Your task to perform on an android device: Search for vegetarian restaurants on Maps Image 0: 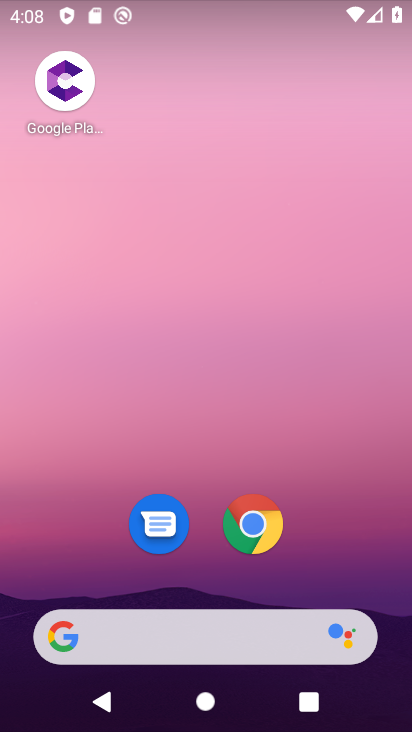
Step 0: drag from (352, 532) to (287, 35)
Your task to perform on an android device: Search for vegetarian restaurants on Maps Image 1: 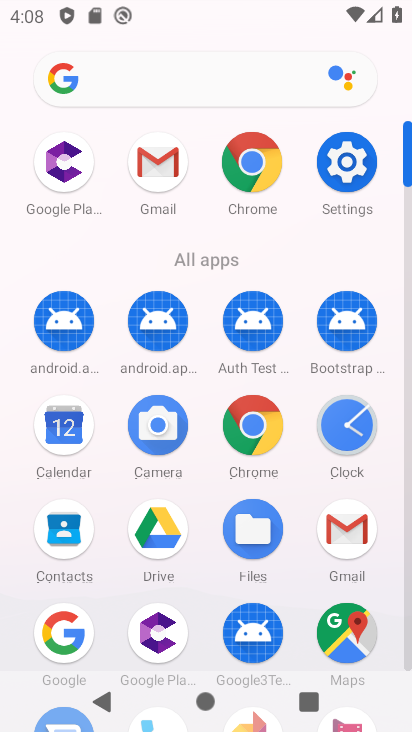
Step 1: click (345, 621)
Your task to perform on an android device: Search for vegetarian restaurants on Maps Image 2: 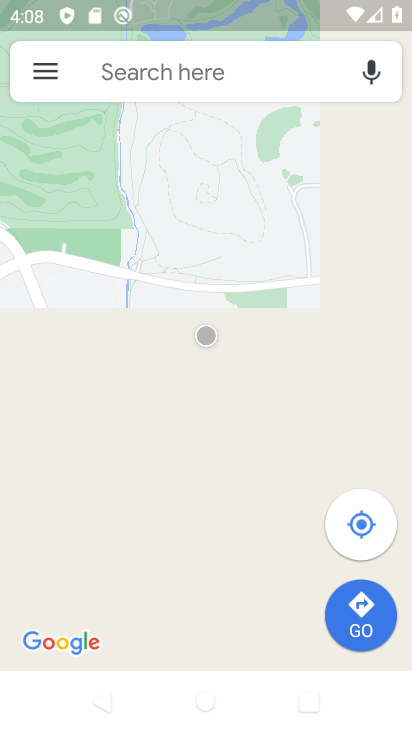
Step 2: click (166, 73)
Your task to perform on an android device: Search for vegetarian restaurants on Maps Image 3: 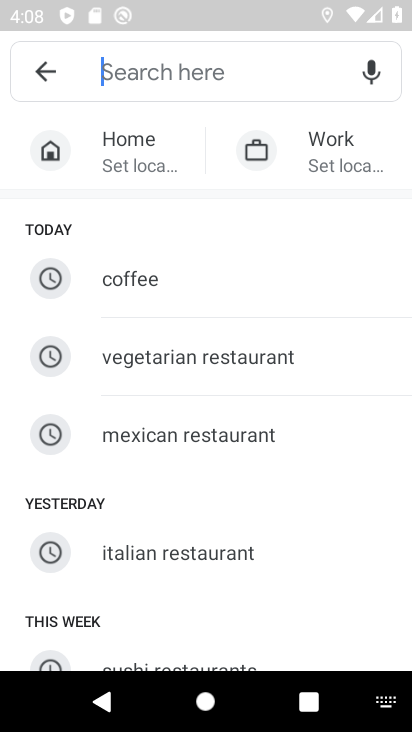
Step 3: click (186, 360)
Your task to perform on an android device: Search for vegetarian restaurants on Maps Image 4: 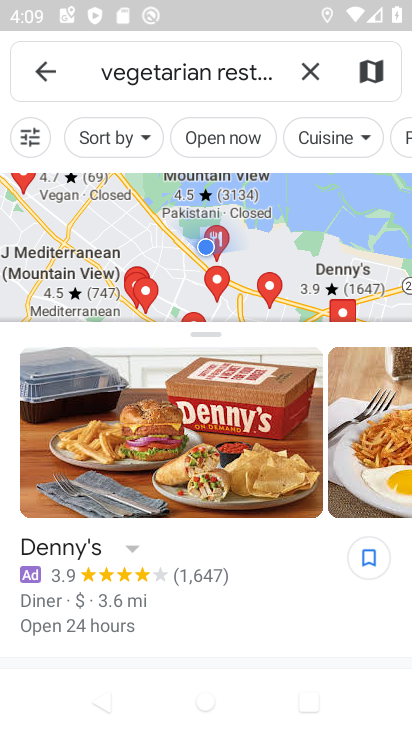
Step 4: task complete